Your task to perform on an android device: Open Youtube and go to "Your channel" Image 0: 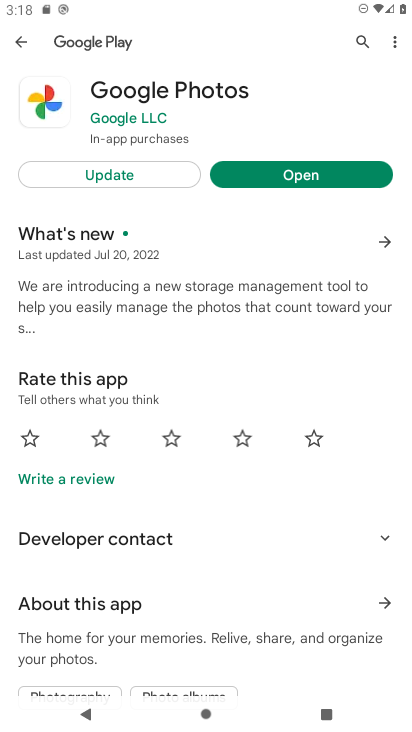
Step 0: press home button
Your task to perform on an android device: Open Youtube and go to "Your channel" Image 1: 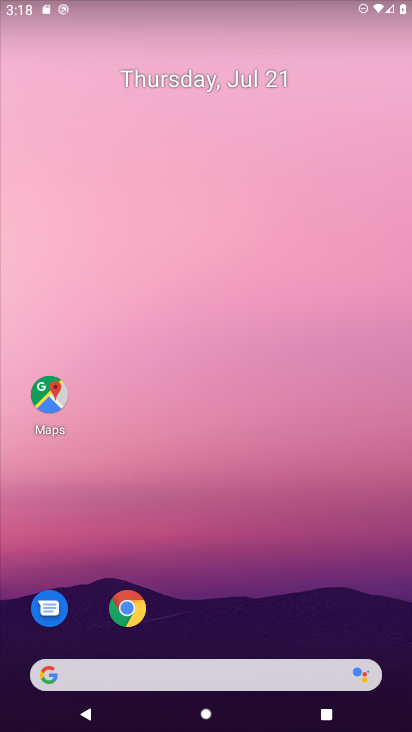
Step 1: drag from (226, 614) to (268, 195)
Your task to perform on an android device: Open Youtube and go to "Your channel" Image 2: 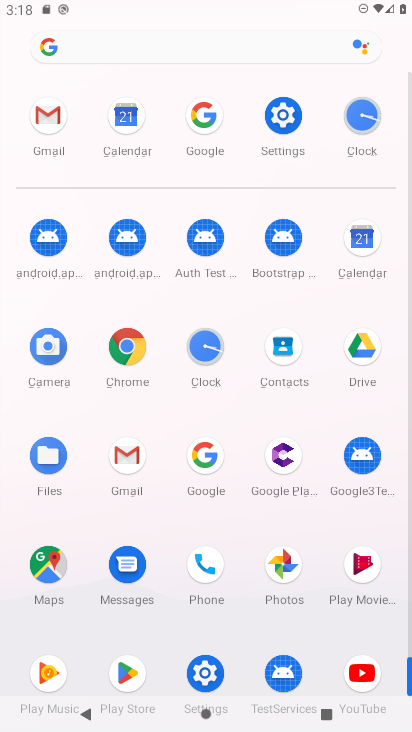
Step 2: click (365, 671)
Your task to perform on an android device: Open Youtube and go to "Your channel" Image 3: 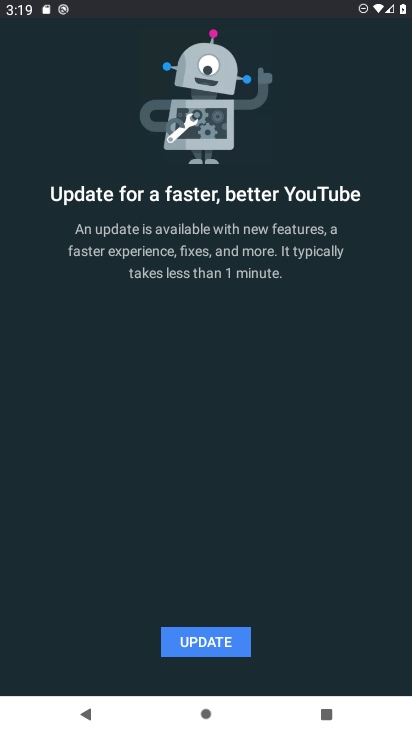
Step 3: click (229, 638)
Your task to perform on an android device: Open Youtube and go to "Your channel" Image 4: 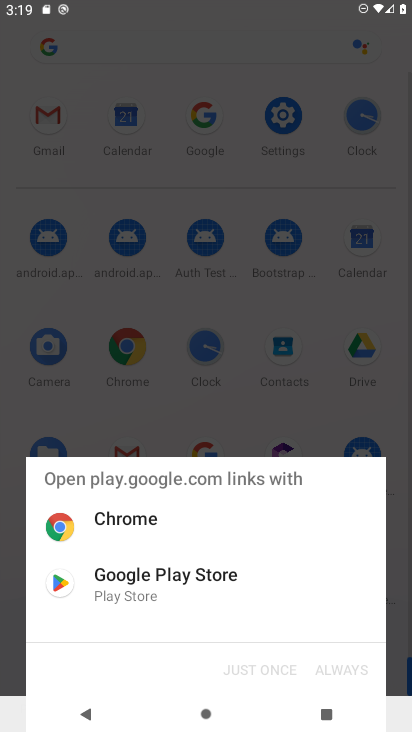
Step 4: click (251, 661)
Your task to perform on an android device: Open Youtube and go to "Your channel" Image 5: 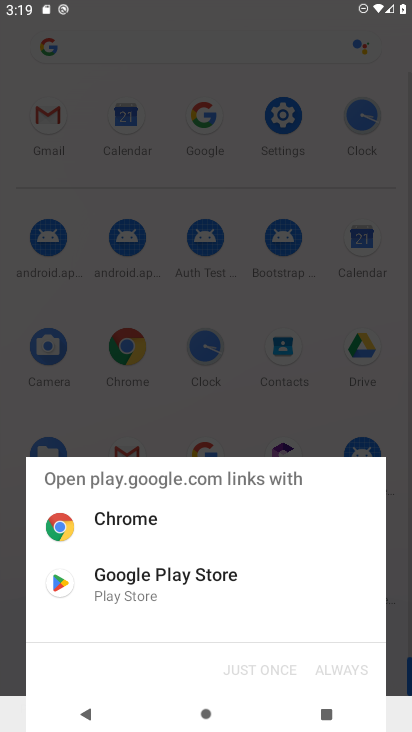
Step 5: click (158, 583)
Your task to perform on an android device: Open Youtube and go to "Your channel" Image 6: 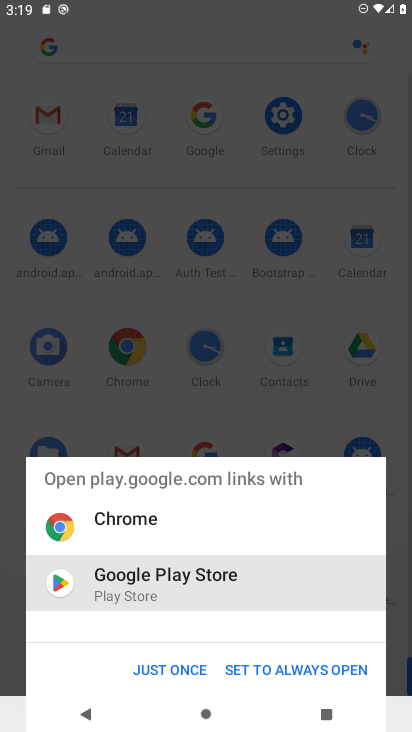
Step 6: click (169, 659)
Your task to perform on an android device: Open Youtube and go to "Your channel" Image 7: 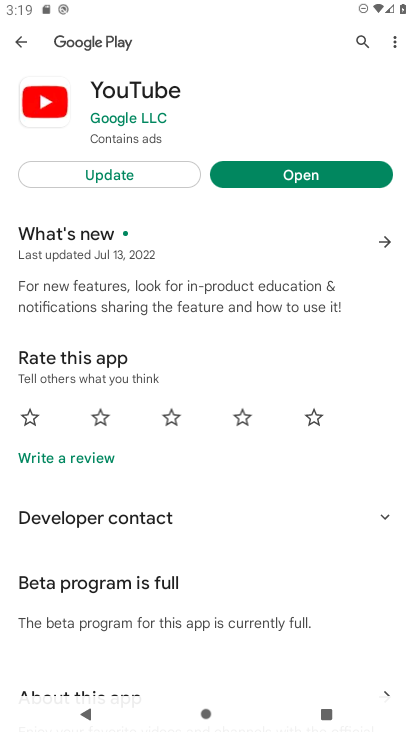
Step 7: click (154, 175)
Your task to perform on an android device: Open Youtube and go to "Your channel" Image 8: 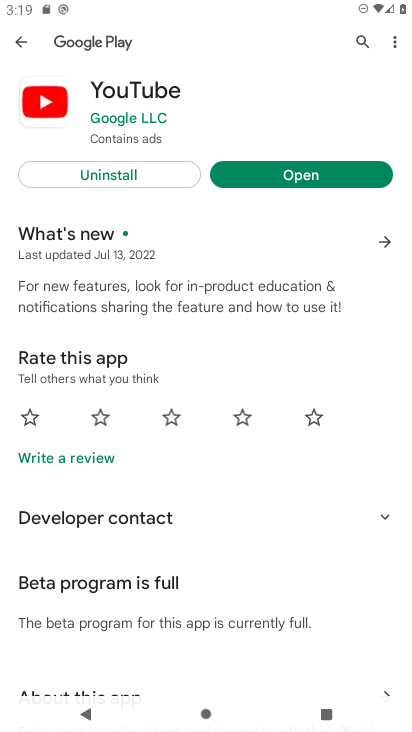
Step 8: click (273, 179)
Your task to perform on an android device: Open Youtube and go to "Your channel" Image 9: 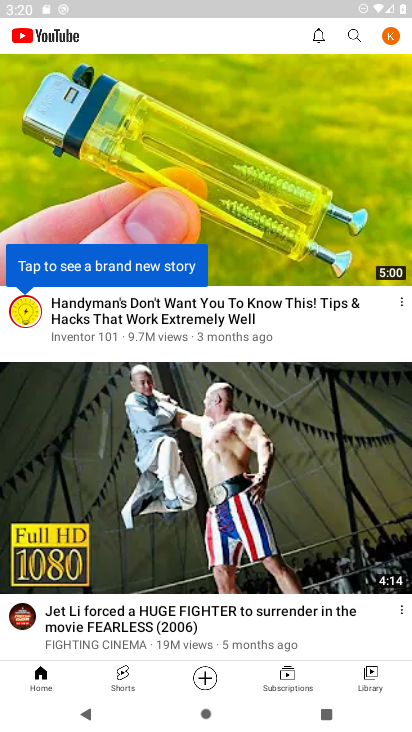
Step 9: click (390, 45)
Your task to perform on an android device: Open Youtube and go to "Your channel" Image 10: 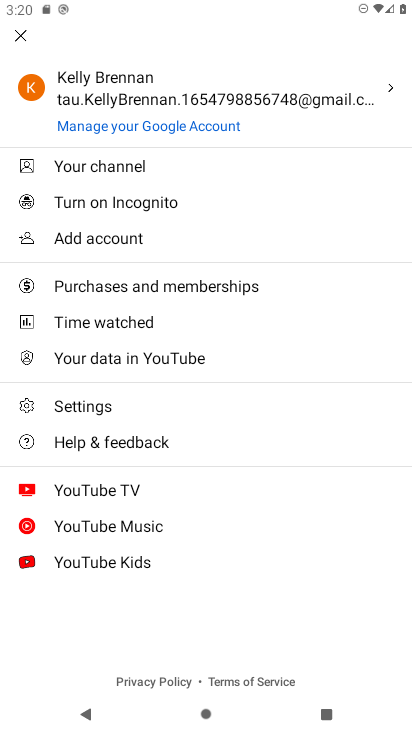
Step 10: click (78, 161)
Your task to perform on an android device: Open Youtube and go to "Your channel" Image 11: 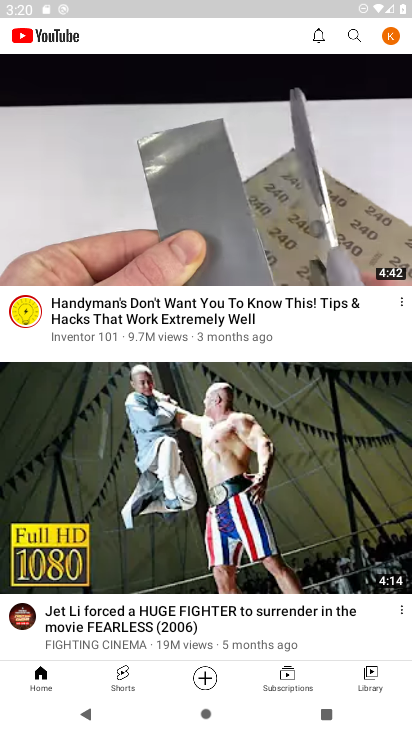
Step 11: click (406, 36)
Your task to perform on an android device: Open Youtube and go to "Your channel" Image 12: 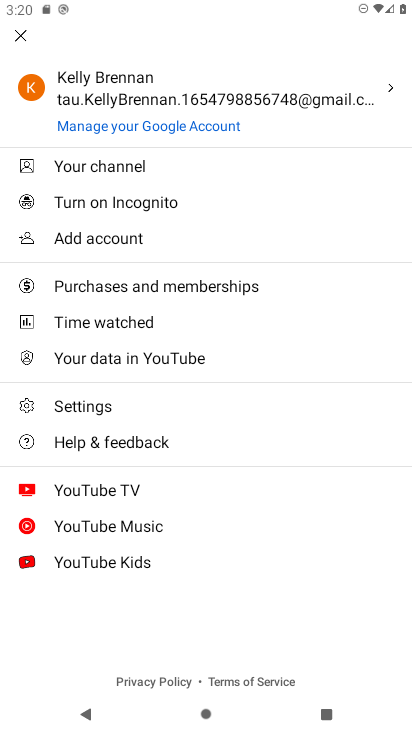
Step 12: click (85, 170)
Your task to perform on an android device: Open Youtube and go to "Your channel" Image 13: 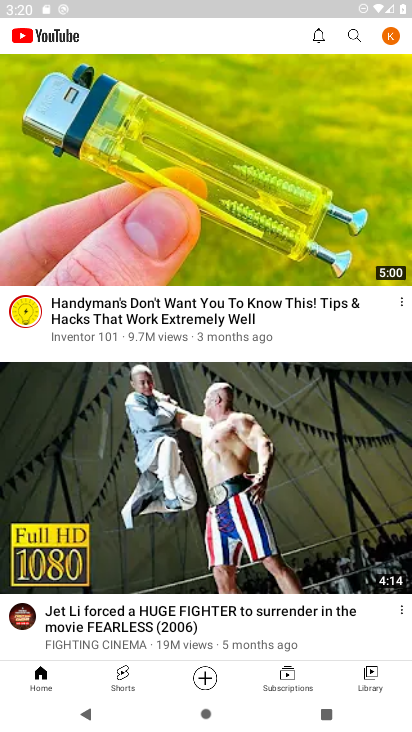
Step 13: task complete